Your task to perform on an android device: Go to settings Image 0: 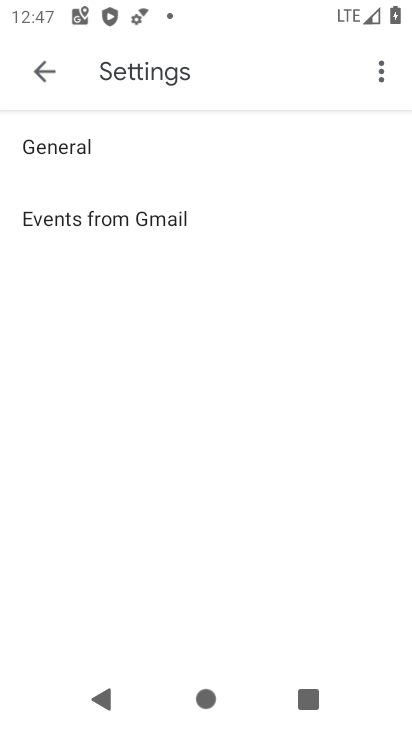
Step 0: press home button
Your task to perform on an android device: Go to settings Image 1: 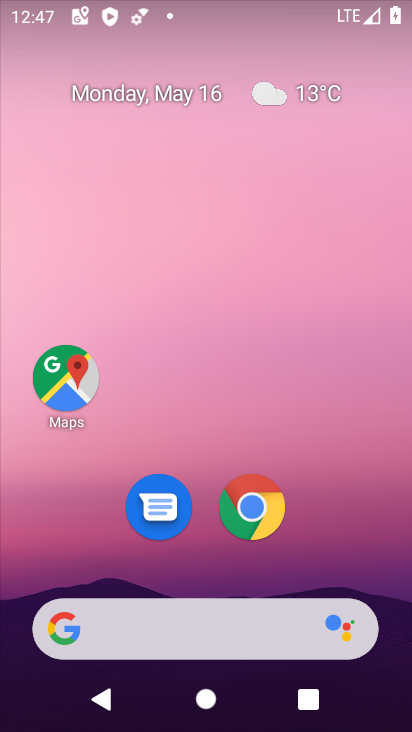
Step 1: drag from (343, 538) to (238, 1)
Your task to perform on an android device: Go to settings Image 2: 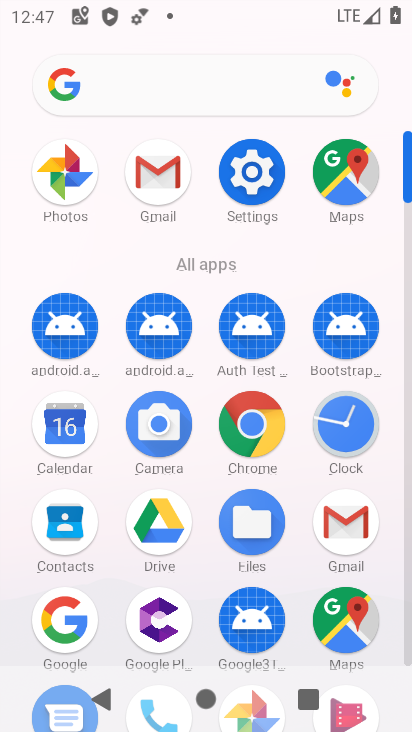
Step 2: click (249, 170)
Your task to perform on an android device: Go to settings Image 3: 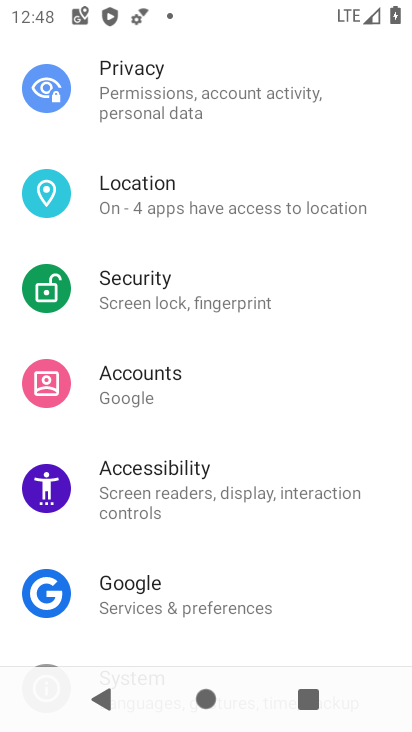
Step 3: task complete